Your task to perform on an android device: What is the news today? Image 0: 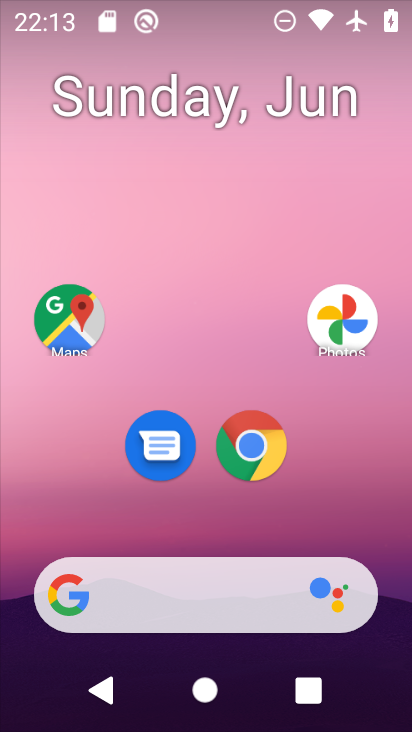
Step 0: press home button
Your task to perform on an android device: What is the news today? Image 1: 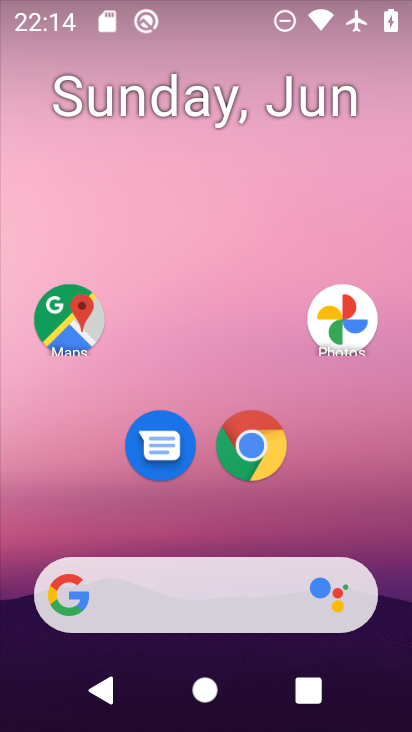
Step 1: click (54, 596)
Your task to perform on an android device: What is the news today? Image 2: 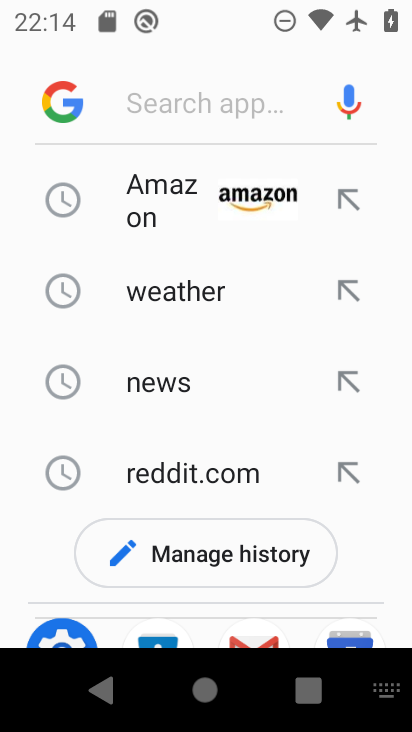
Step 2: type "news today?"
Your task to perform on an android device: What is the news today? Image 3: 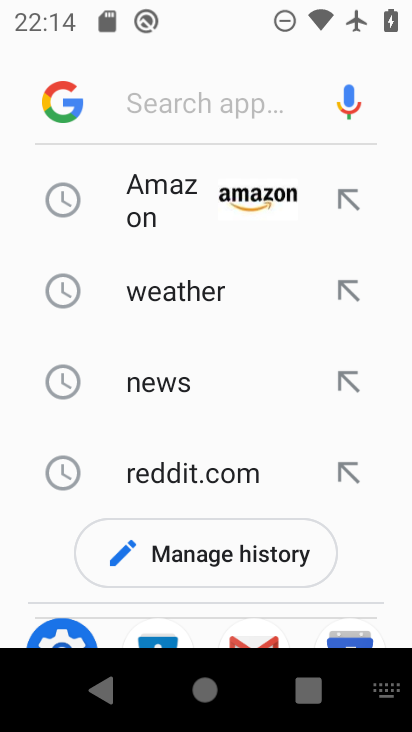
Step 3: click (200, 109)
Your task to perform on an android device: What is the news today? Image 4: 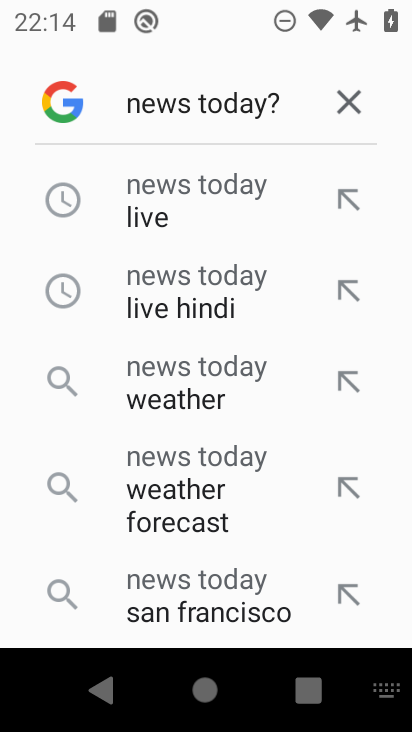
Step 4: click (345, 102)
Your task to perform on an android device: What is the news today? Image 5: 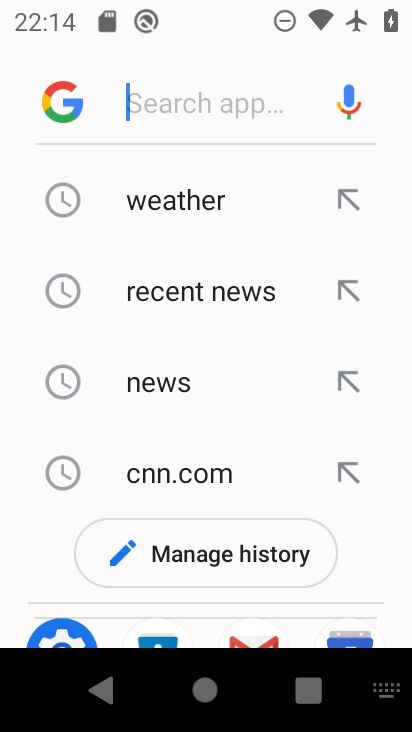
Step 5: type "news today"
Your task to perform on an android device: What is the news today? Image 6: 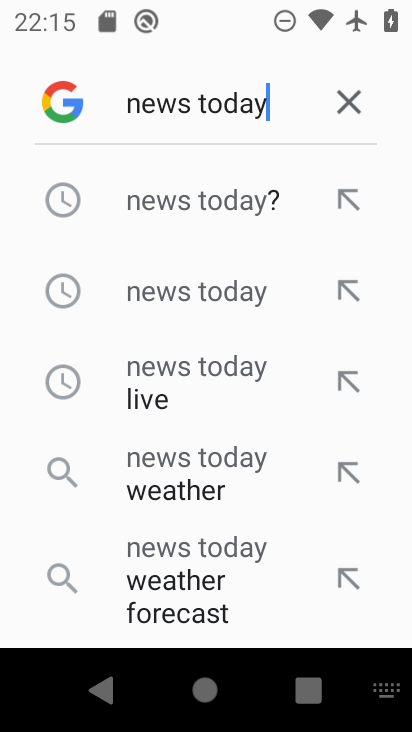
Step 6: click (195, 203)
Your task to perform on an android device: What is the news today? Image 7: 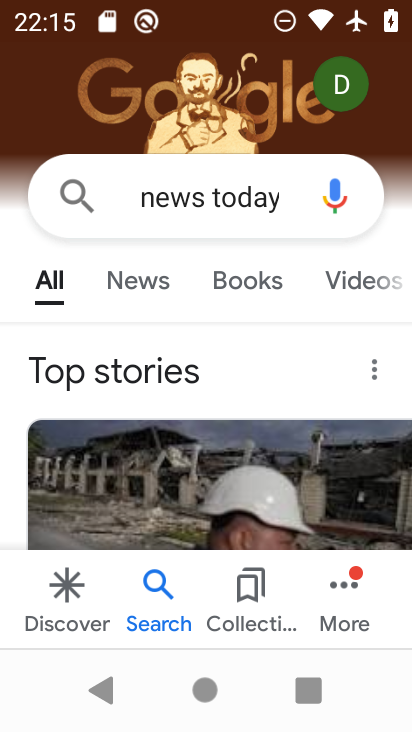
Step 7: task complete